Your task to perform on an android device: open chrome privacy settings Image 0: 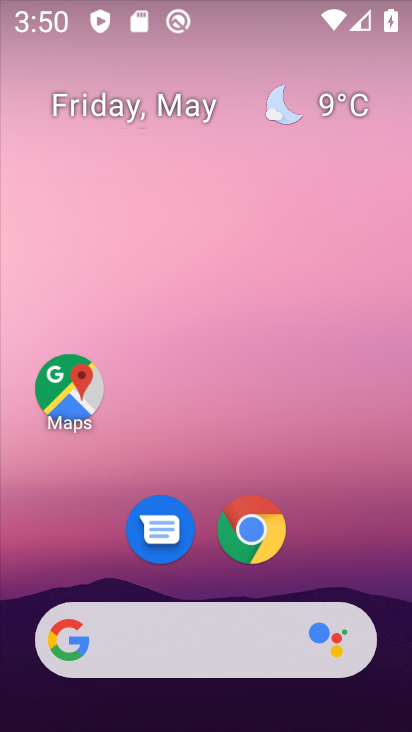
Step 0: click (240, 531)
Your task to perform on an android device: open chrome privacy settings Image 1: 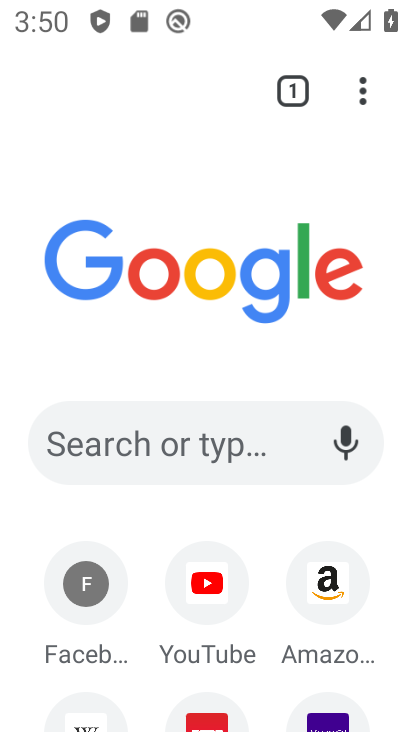
Step 1: drag from (372, 95) to (266, 556)
Your task to perform on an android device: open chrome privacy settings Image 2: 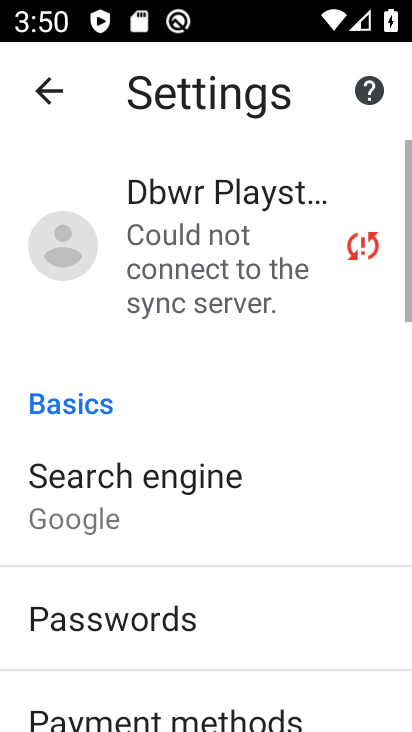
Step 2: drag from (192, 674) to (353, 337)
Your task to perform on an android device: open chrome privacy settings Image 3: 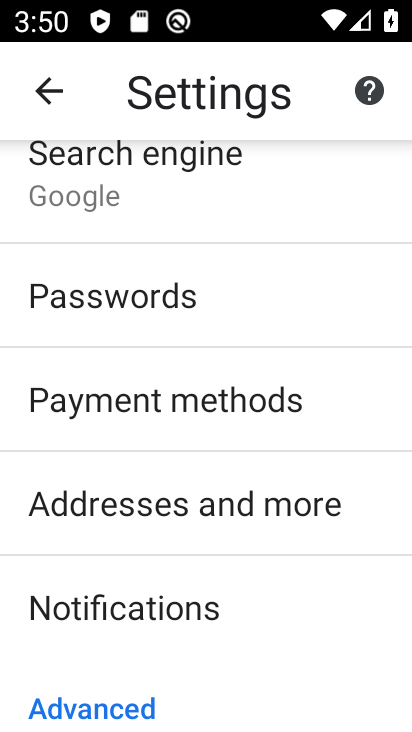
Step 3: drag from (231, 604) to (316, 291)
Your task to perform on an android device: open chrome privacy settings Image 4: 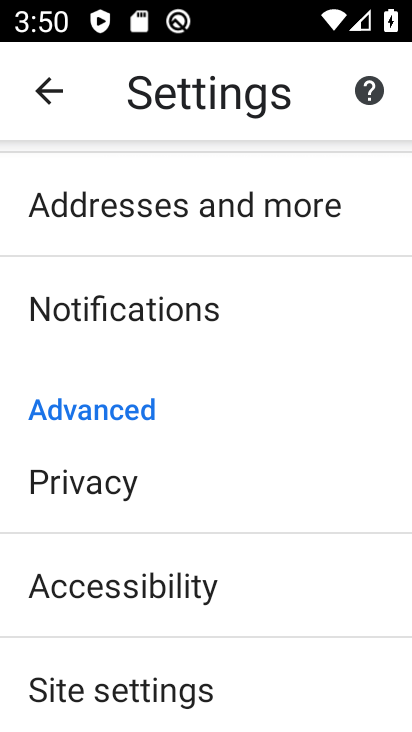
Step 4: click (181, 480)
Your task to perform on an android device: open chrome privacy settings Image 5: 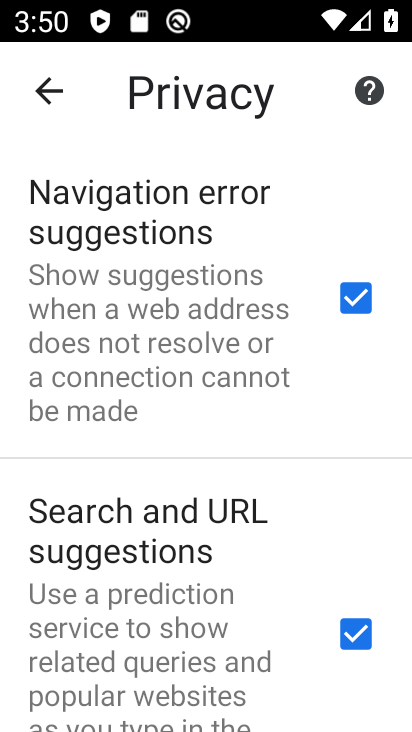
Step 5: task complete